Your task to perform on an android device: open a new tab in the chrome app Image 0: 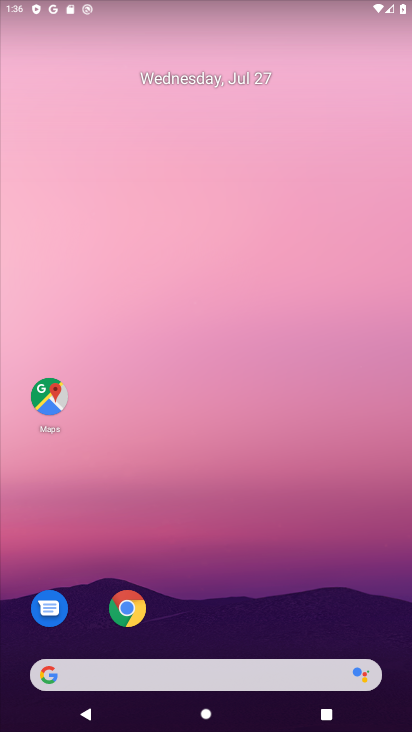
Step 0: drag from (28, 693) to (340, 45)
Your task to perform on an android device: open a new tab in the chrome app Image 1: 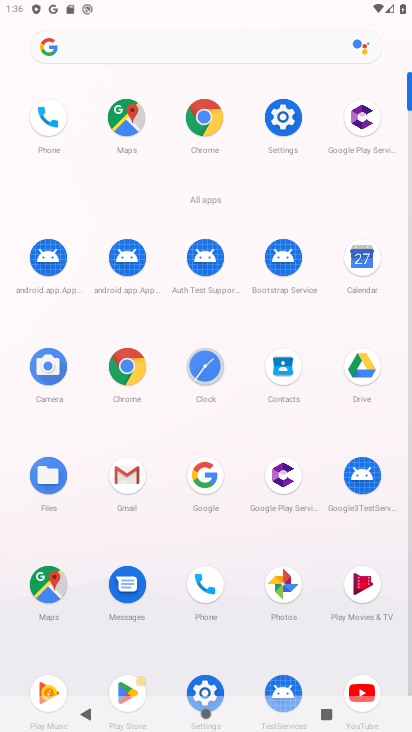
Step 1: click (134, 366)
Your task to perform on an android device: open a new tab in the chrome app Image 2: 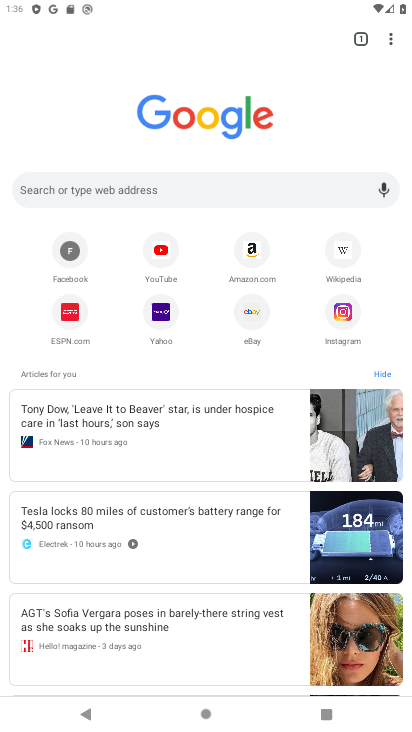
Step 2: click (285, 183)
Your task to perform on an android device: open a new tab in the chrome app Image 3: 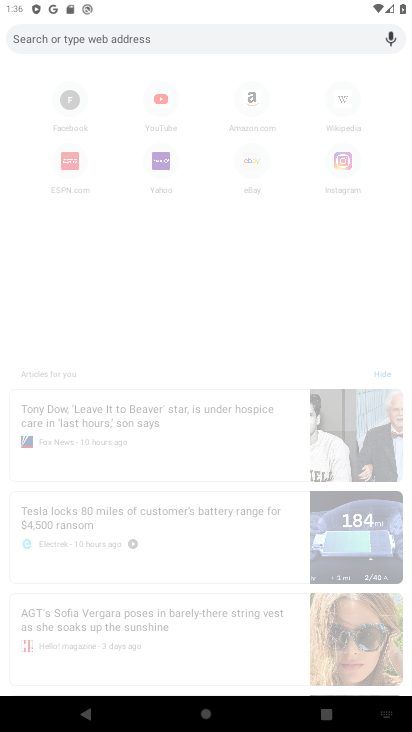
Step 3: click (349, 38)
Your task to perform on an android device: open a new tab in the chrome app Image 4: 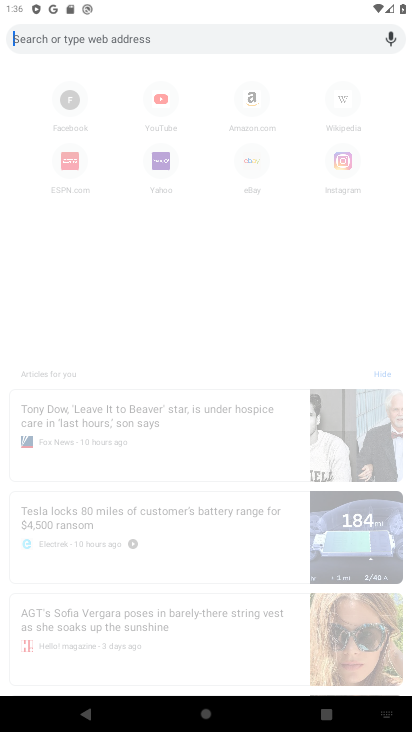
Step 4: click (386, 48)
Your task to perform on an android device: open a new tab in the chrome app Image 5: 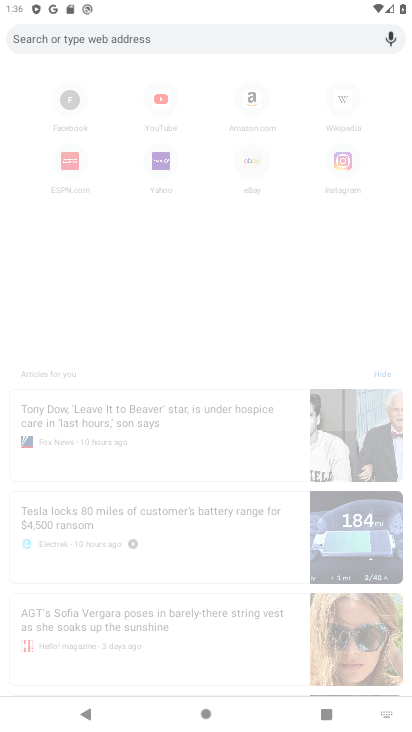
Step 5: click (290, 286)
Your task to perform on an android device: open a new tab in the chrome app Image 6: 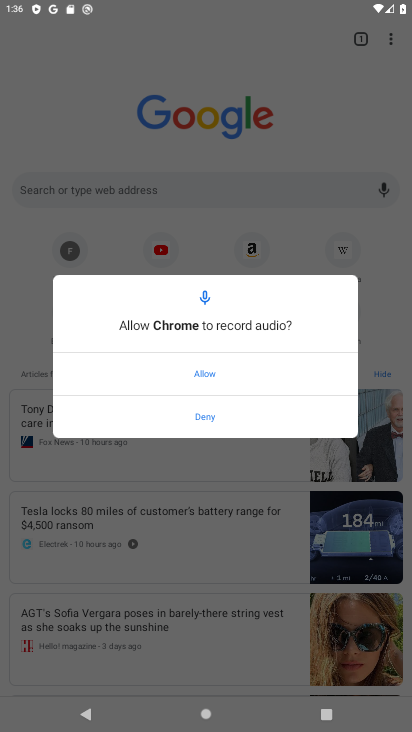
Step 6: click (291, 80)
Your task to perform on an android device: open a new tab in the chrome app Image 7: 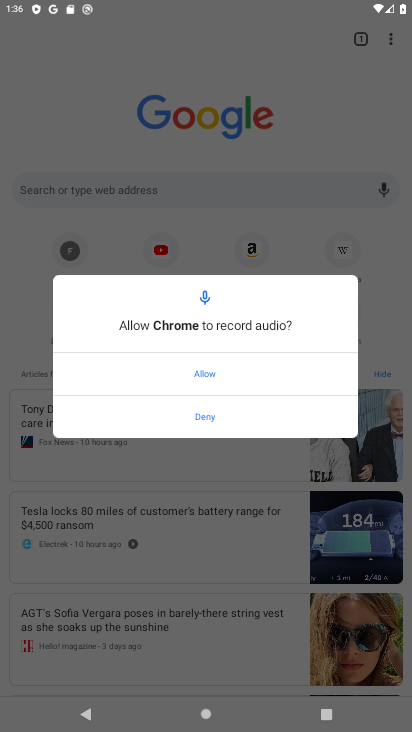
Step 7: click (210, 417)
Your task to perform on an android device: open a new tab in the chrome app Image 8: 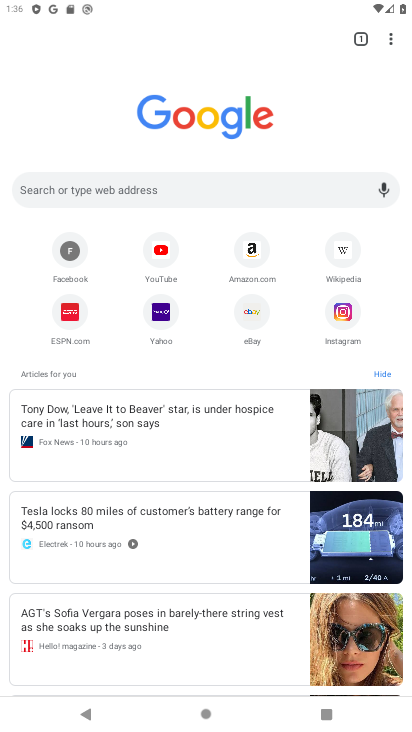
Step 8: click (396, 43)
Your task to perform on an android device: open a new tab in the chrome app Image 9: 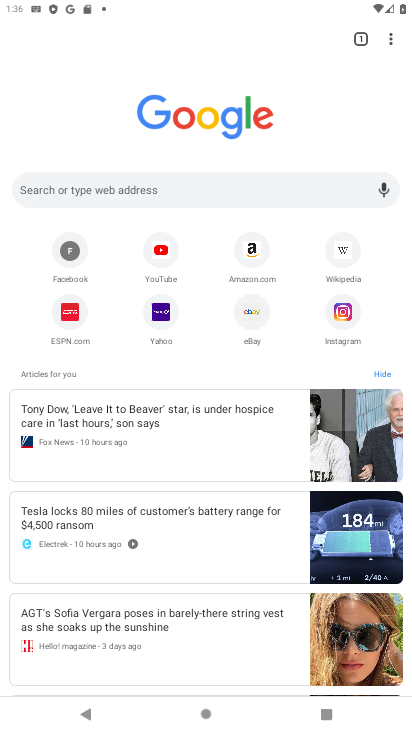
Step 9: task complete